Your task to perform on an android device: toggle show notifications on the lock screen Image 0: 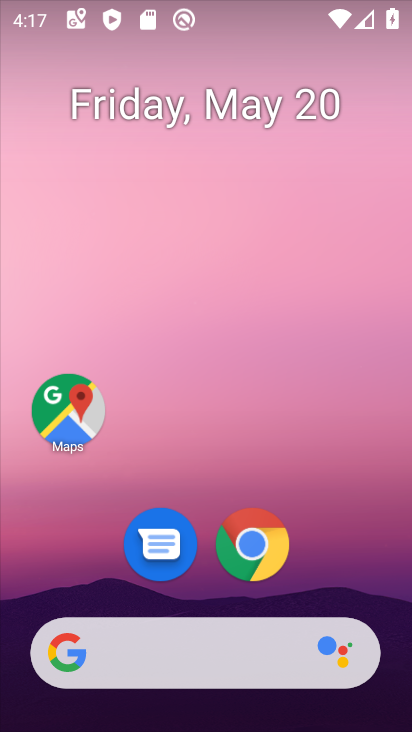
Step 0: drag from (358, 600) to (411, 432)
Your task to perform on an android device: toggle show notifications on the lock screen Image 1: 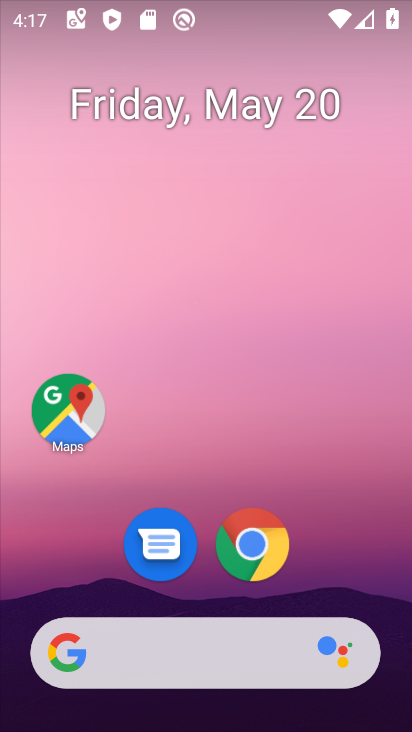
Step 1: drag from (406, 424) to (399, 269)
Your task to perform on an android device: toggle show notifications on the lock screen Image 2: 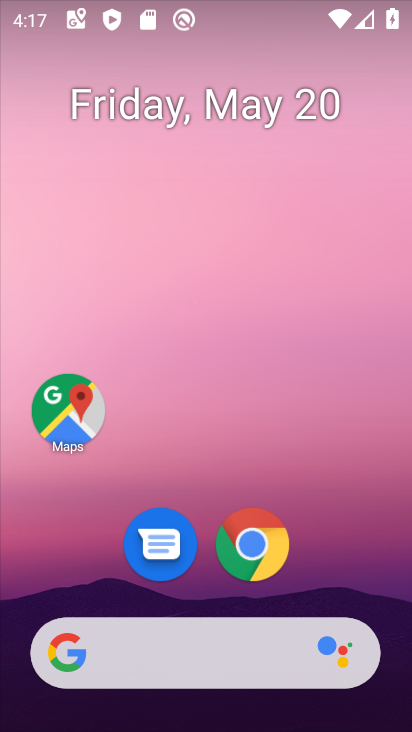
Step 2: drag from (368, 562) to (405, 477)
Your task to perform on an android device: toggle show notifications on the lock screen Image 3: 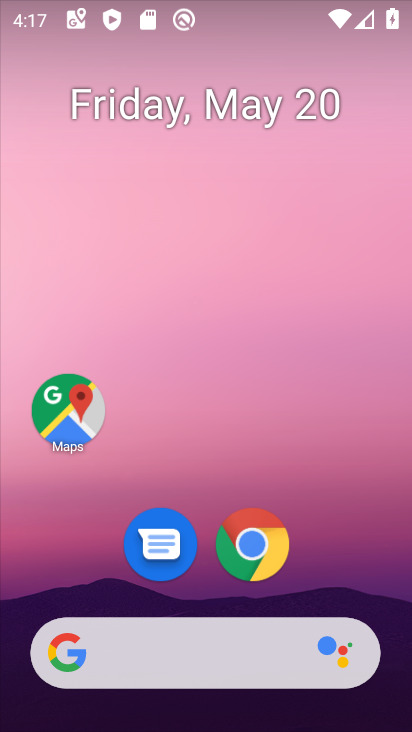
Step 3: drag from (337, 517) to (352, 9)
Your task to perform on an android device: toggle show notifications on the lock screen Image 4: 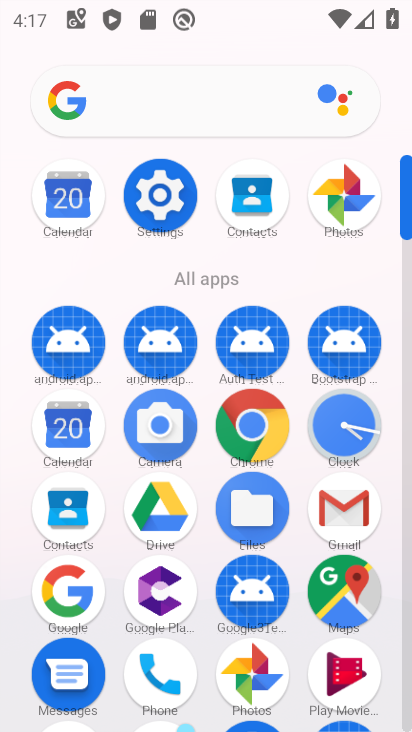
Step 4: click (161, 197)
Your task to perform on an android device: toggle show notifications on the lock screen Image 5: 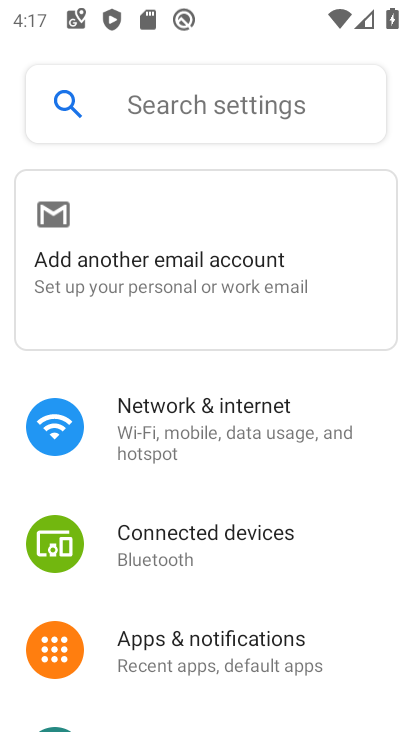
Step 5: click (211, 646)
Your task to perform on an android device: toggle show notifications on the lock screen Image 6: 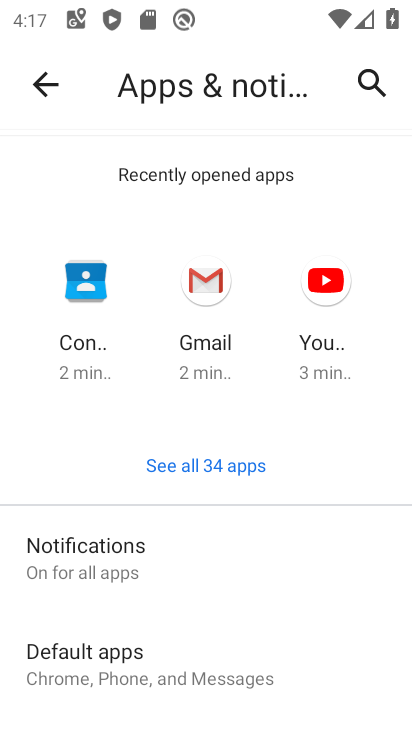
Step 6: click (69, 557)
Your task to perform on an android device: toggle show notifications on the lock screen Image 7: 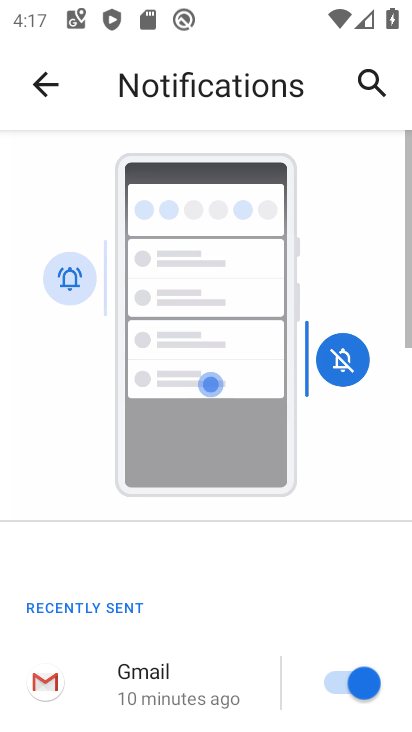
Step 7: drag from (148, 614) to (169, 146)
Your task to perform on an android device: toggle show notifications on the lock screen Image 8: 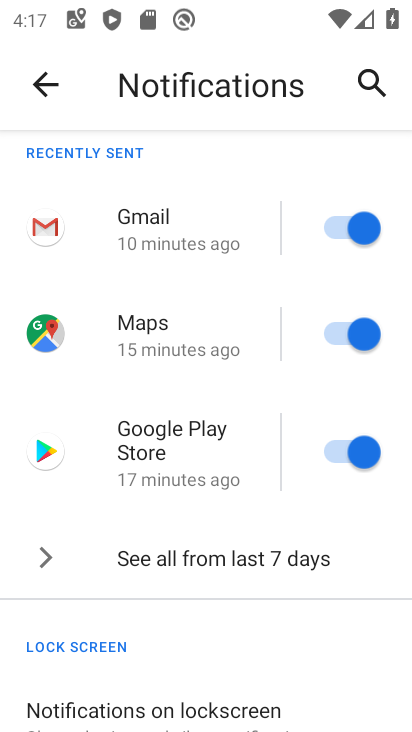
Step 8: drag from (171, 515) to (172, 214)
Your task to perform on an android device: toggle show notifications on the lock screen Image 9: 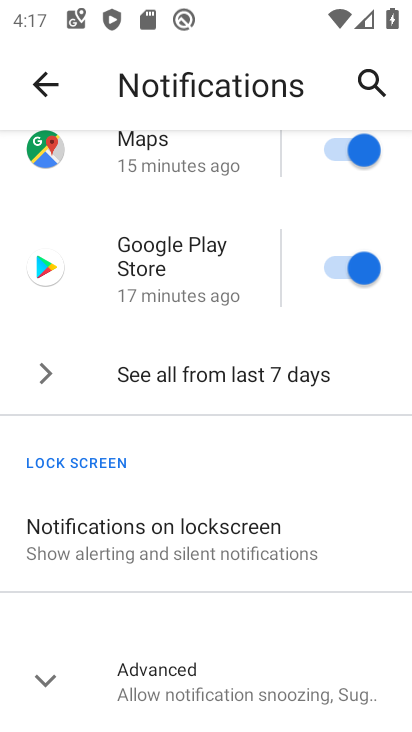
Step 9: click (153, 531)
Your task to perform on an android device: toggle show notifications on the lock screen Image 10: 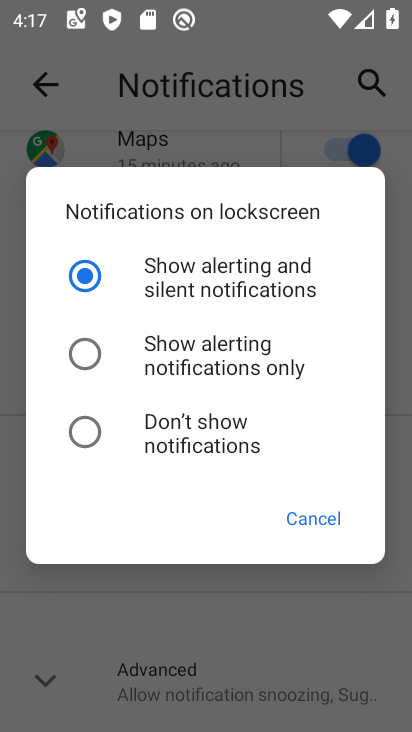
Step 10: click (77, 427)
Your task to perform on an android device: toggle show notifications on the lock screen Image 11: 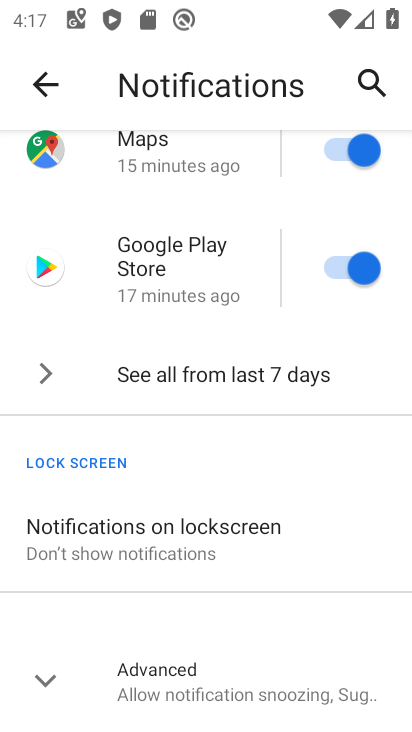
Step 11: task complete